Your task to perform on an android device: toggle notifications settings in the gmail app Image 0: 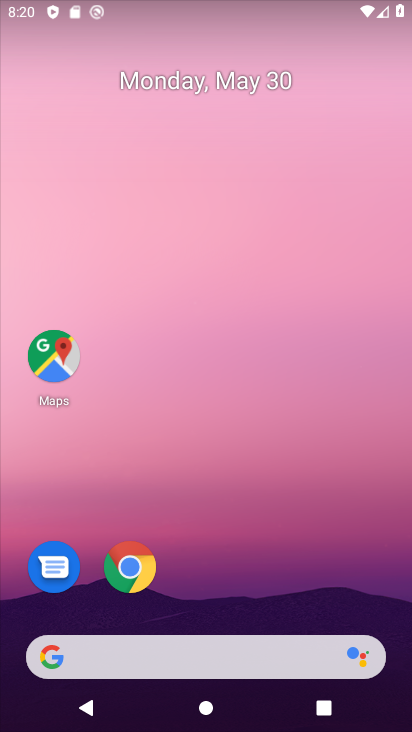
Step 0: drag from (244, 609) to (172, 182)
Your task to perform on an android device: toggle notifications settings in the gmail app Image 1: 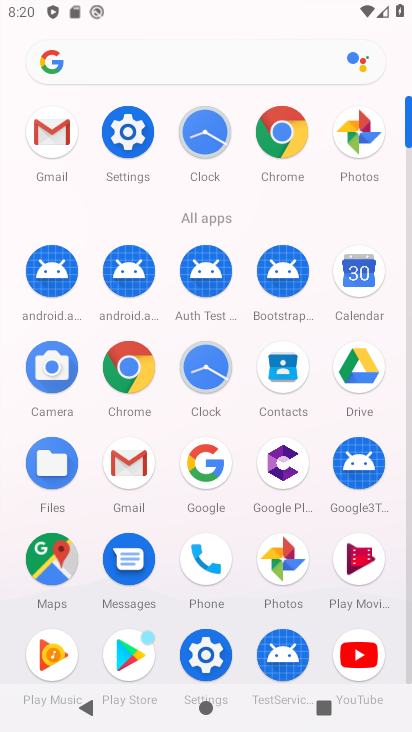
Step 1: click (66, 121)
Your task to perform on an android device: toggle notifications settings in the gmail app Image 2: 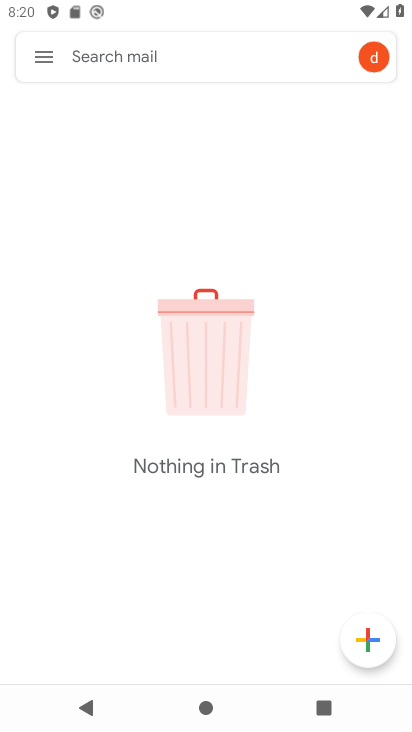
Step 2: click (41, 54)
Your task to perform on an android device: toggle notifications settings in the gmail app Image 3: 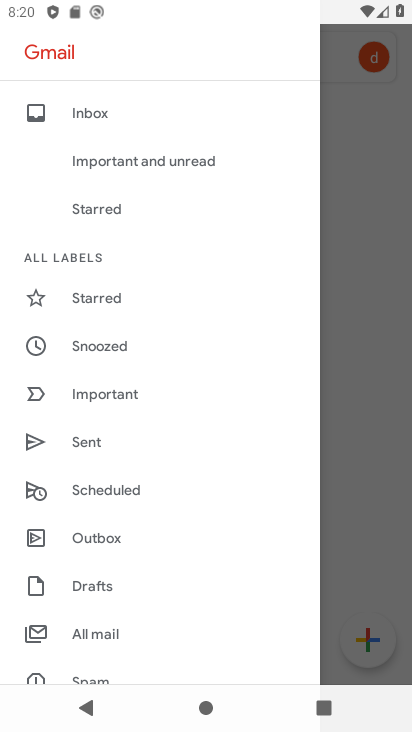
Step 3: drag from (109, 645) to (166, 246)
Your task to perform on an android device: toggle notifications settings in the gmail app Image 4: 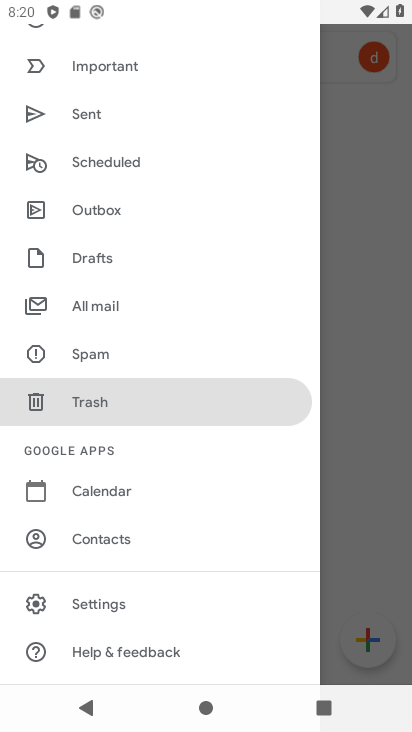
Step 4: click (101, 610)
Your task to perform on an android device: toggle notifications settings in the gmail app Image 5: 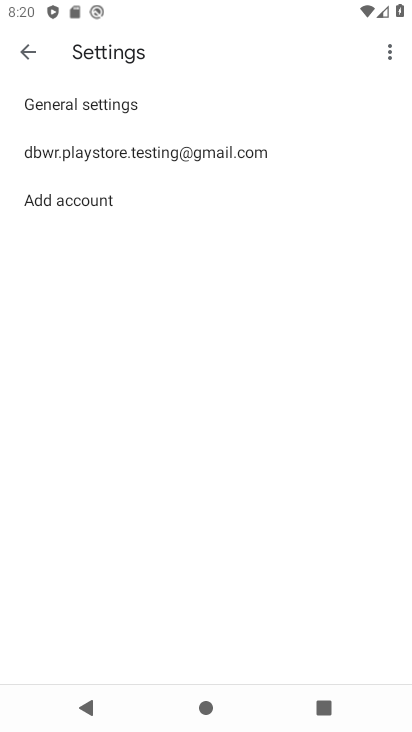
Step 5: click (241, 156)
Your task to perform on an android device: toggle notifications settings in the gmail app Image 6: 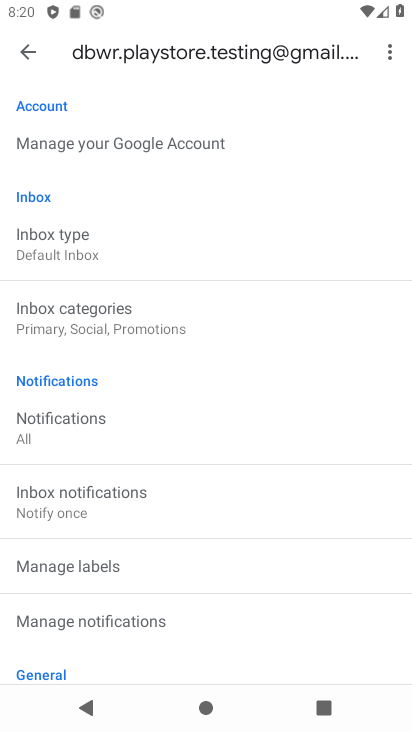
Step 6: click (74, 448)
Your task to perform on an android device: toggle notifications settings in the gmail app Image 7: 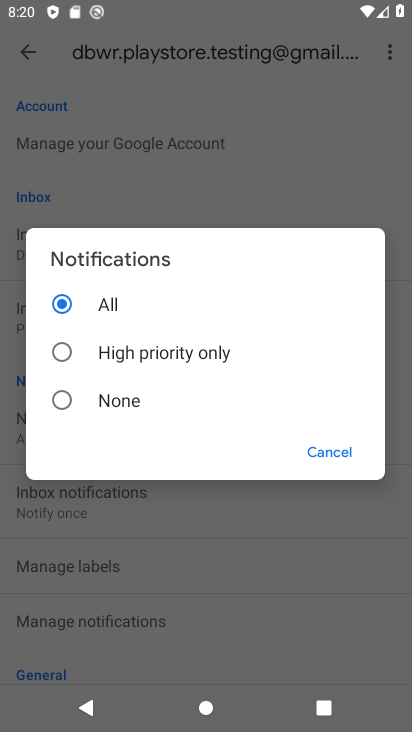
Step 7: task complete